Your task to perform on an android device: turn pop-ups on in chrome Image 0: 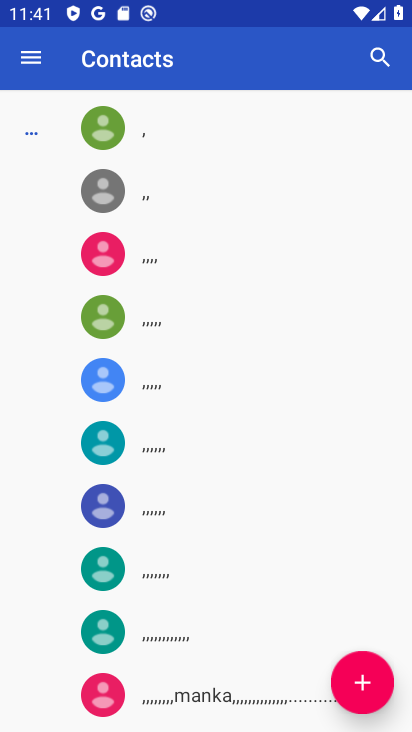
Step 0: press back button
Your task to perform on an android device: turn pop-ups on in chrome Image 1: 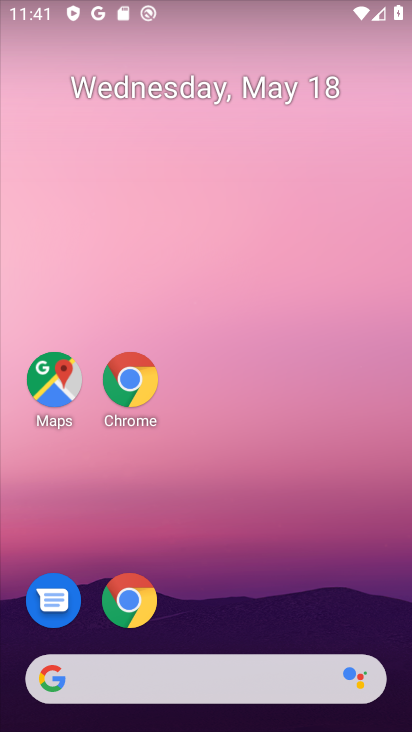
Step 1: click (204, 53)
Your task to perform on an android device: turn pop-ups on in chrome Image 2: 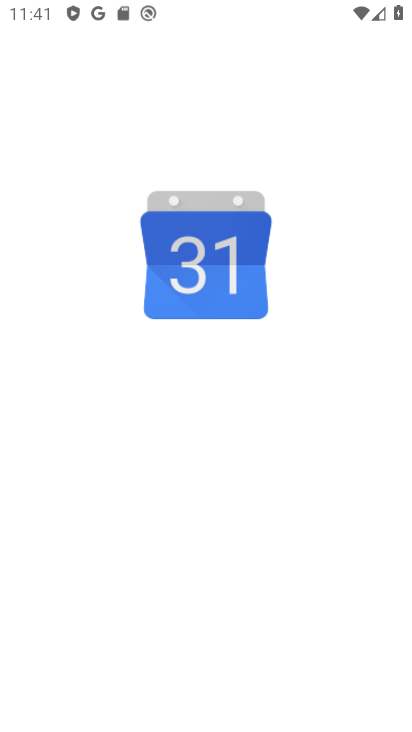
Step 2: drag from (328, 613) to (250, 264)
Your task to perform on an android device: turn pop-ups on in chrome Image 3: 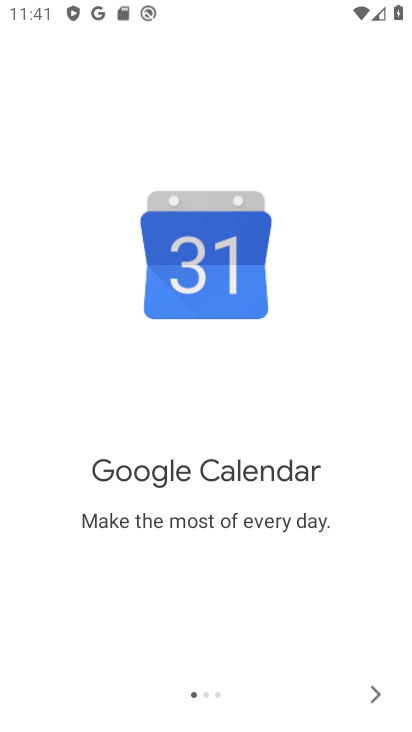
Step 3: press back button
Your task to perform on an android device: turn pop-ups on in chrome Image 4: 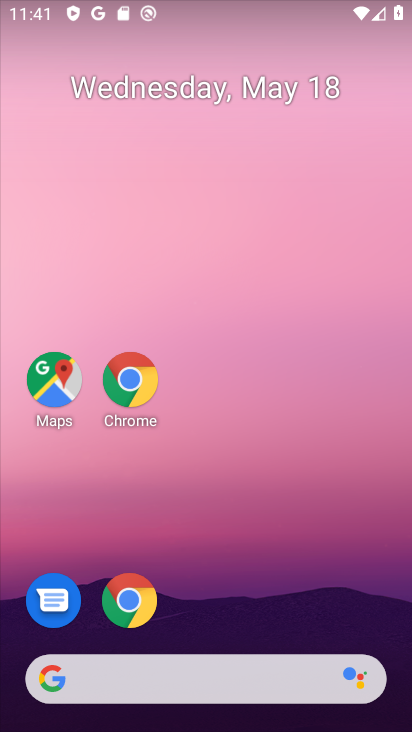
Step 4: click (266, 218)
Your task to perform on an android device: turn pop-ups on in chrome Image 5: 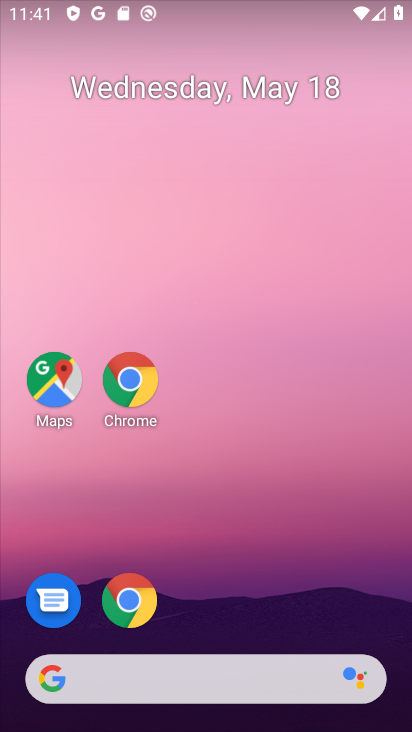
Step 5: drag from (276, 234) to (262, 176)
Your task to perform on an android device: turn pop-ups on in chrome Image 6: 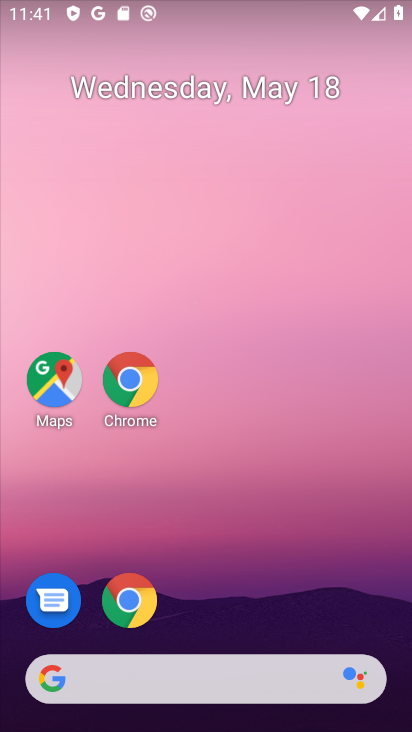
Step 6: drag from (272, 405) to (219, 66)
Your task to perform on an android device: turn pop-ups on in chrome Image 7: 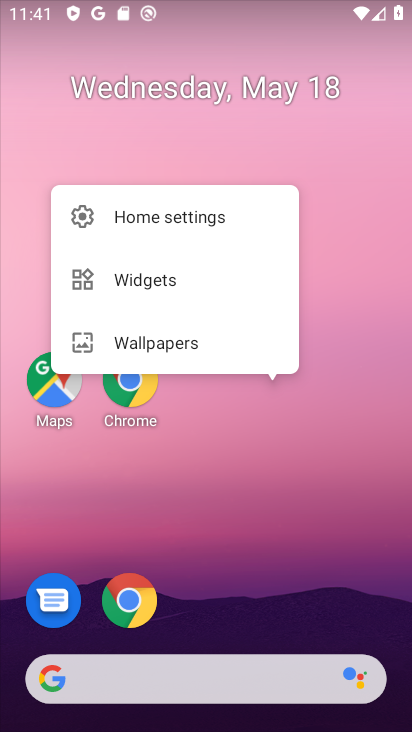
Step 7: drag from (283, 603) to (175, 52)
Your task to perform on an android device: turn pop-ups on in chrome Image 8: 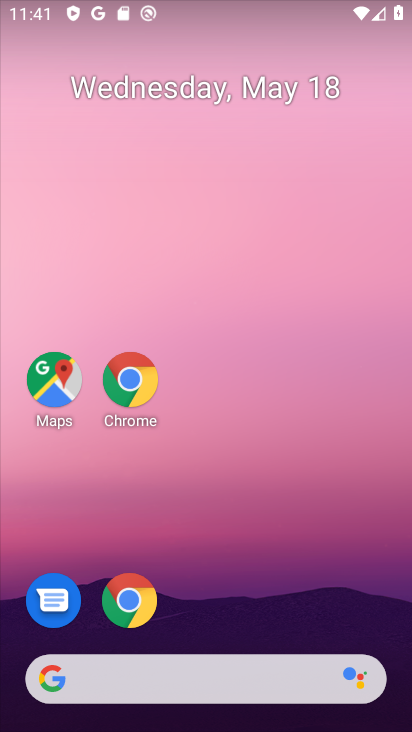
Step 8: drag from (246, 429) to (189, 50)
Your task to perform on an android device: turn pop-ups on in chrome Image 9: 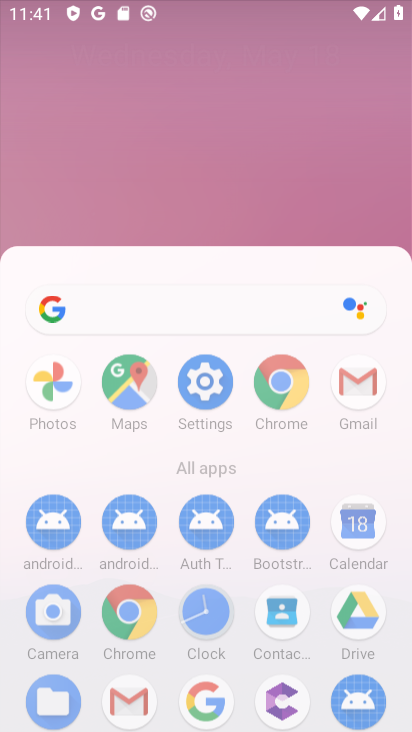
Step 9: drag from (314, 428) to (252, 8)
Your task to perform on an android device: turn pop-ups on in chrome Image 10: 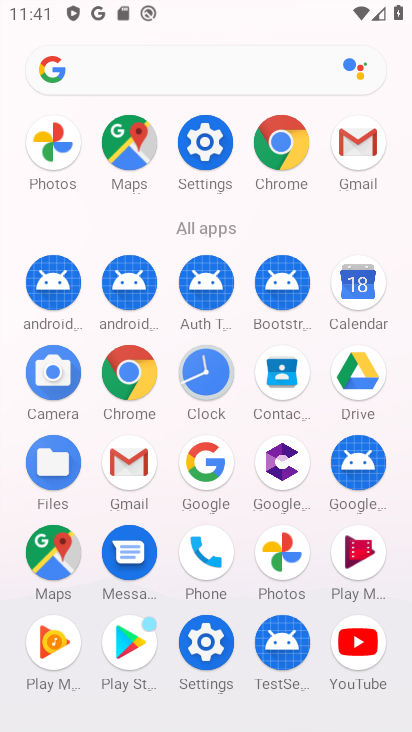
Step 10: drag from (366, 526) to (317, 25)
Your task to perform on an android device: turn pop-ups on in chrome Image 11: 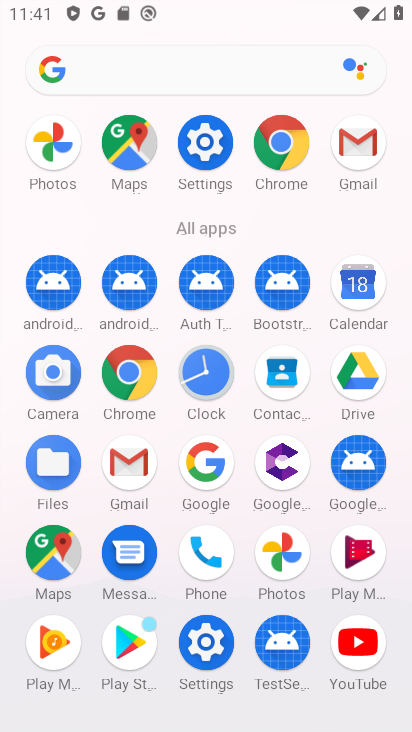
Step 11: click (278, 137)
Your task to perform on an android device: turn pop-ups on in chrome Image 12: 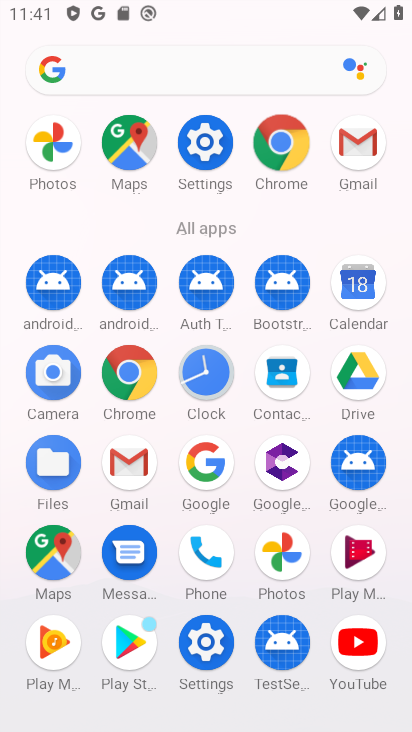
Step 12: click (278, 137)
Your task to perform on an android device: turn pop-ups on in chrome Image 13: 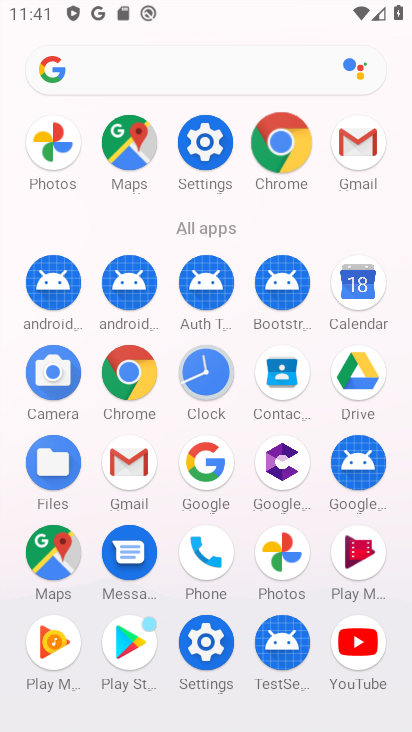
Step 13: click (277, 138)
Your task to perform on an android device: turn pop-ups on in chrome Image 14: 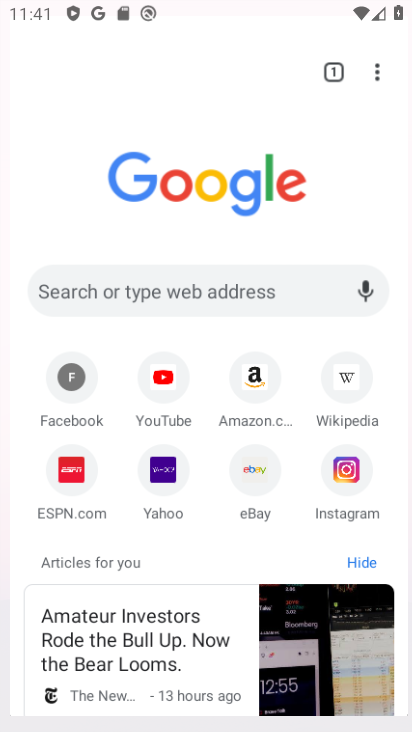
Step 14: click (275, 142)
Your task to perform on an android device: turn pop-ups on in chrome Image 15: 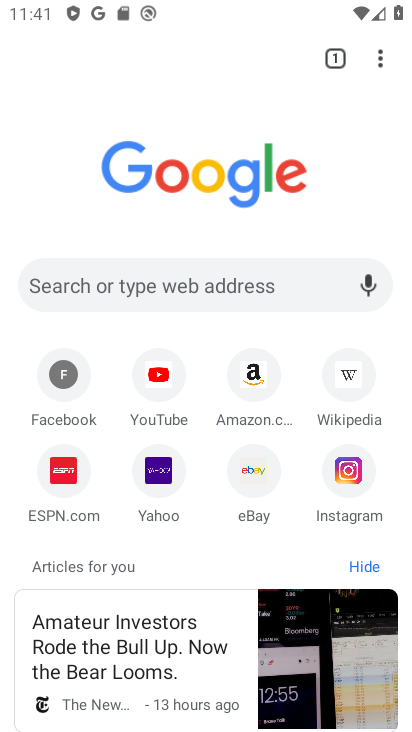
Step 15: click (285, 150)
Your task to perform on an android device: turn pop-ups on in chrome Image 16: 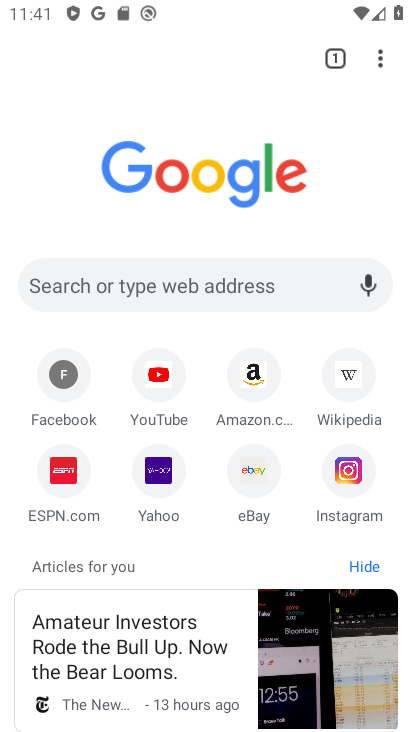
Step 16: drag from (376, 53) to (169, 486)
Your task to perform on an android device: turn pop-ups on in chrome Image 17: 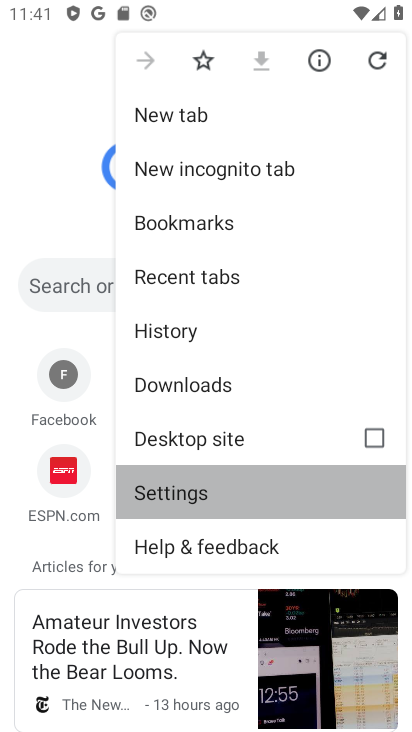
Step 17: click (164, 477)
Your task to perform on an android device: turn pop-ups on in chrome Image 18: 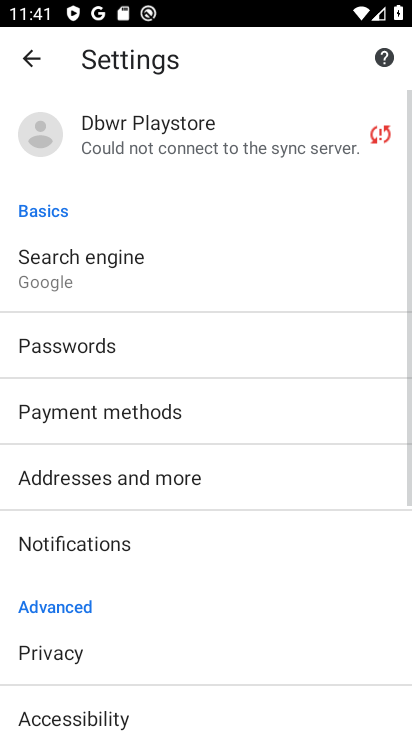
Step 18: drag from (222, 543) to (202, 237)
Your task to perform on an android device: turn pop-ups on in chrome Image 19: 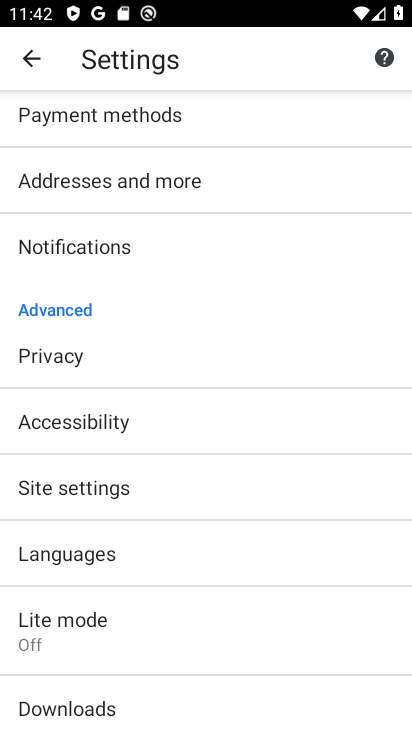
Step 19: click (81, 483)
Your task to perform on an android device: turn pop-ups on in chrome Image 20: 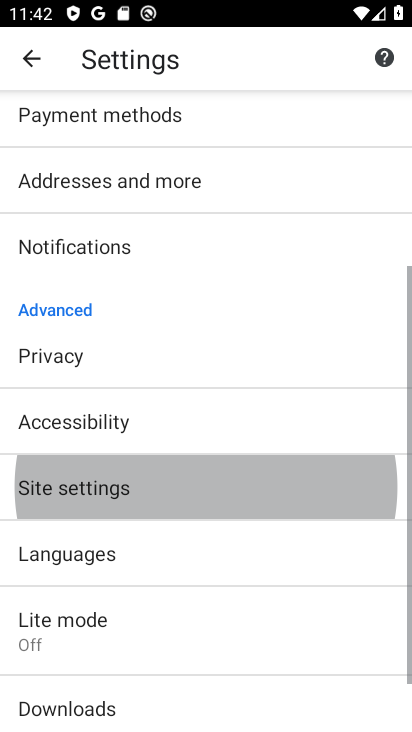
Step 20: click (83, 483)
Your task to perform on an android device: turn pop-ups on in chrome Image 21: 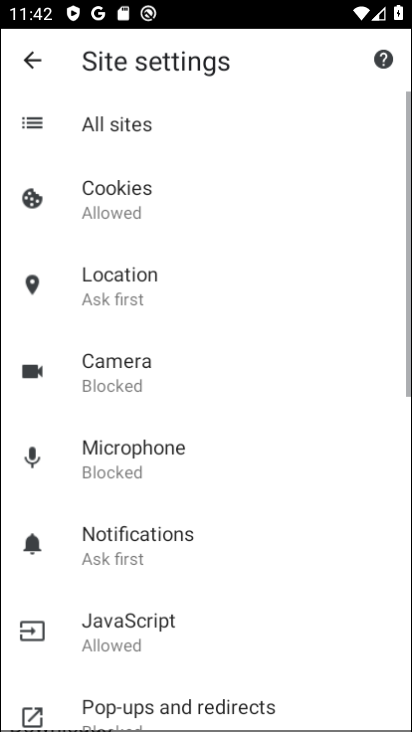
Step 21: click (82, 474)
Your task to perform on an android device: turn pop-ups on in chrome Image 22: 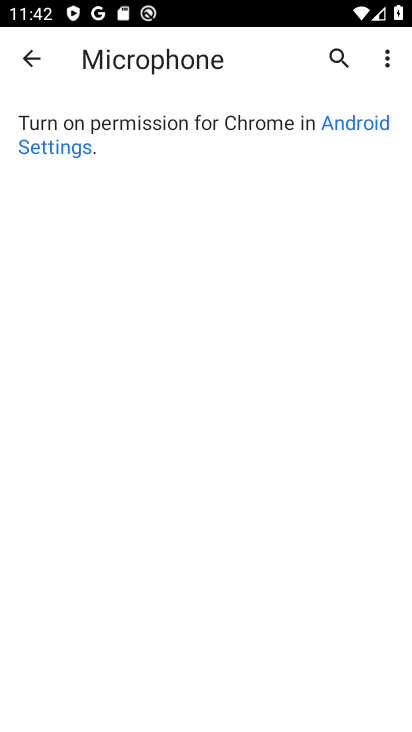
Step 22: click (38, 58)
Your task to perform on an android device: turn pop-ups on in chrome Image 23: 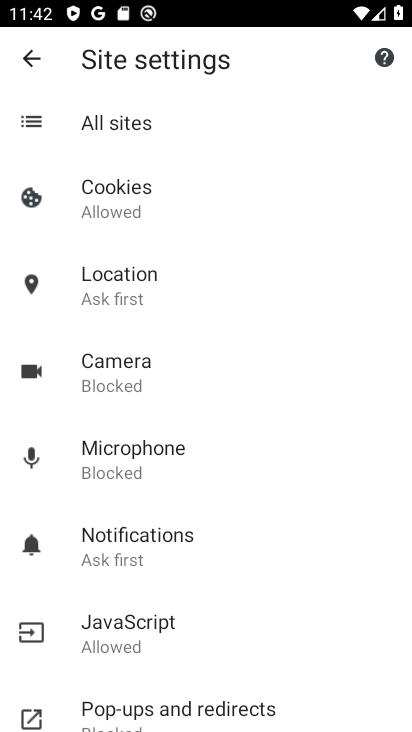
Step 23: drag from (145, 517) to (197, 150)
Your task to perform on an android device: turn pop-ups on in chrome Image 24: 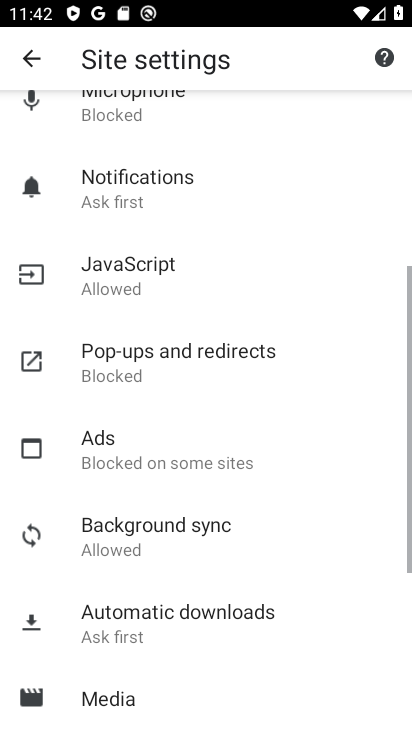
Step 24: drag from (178, 523) to (203, 204)
Your task to perform on an android device: turn pop-ups on in chrome Image 25: 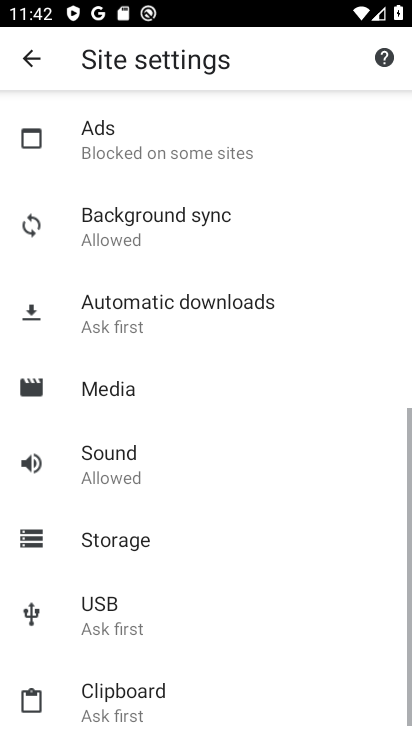
Step 25: drag from (222, 499) to (290, 124)
Your task to perform on an android device: turn pop-ups on in chrome Image 26: 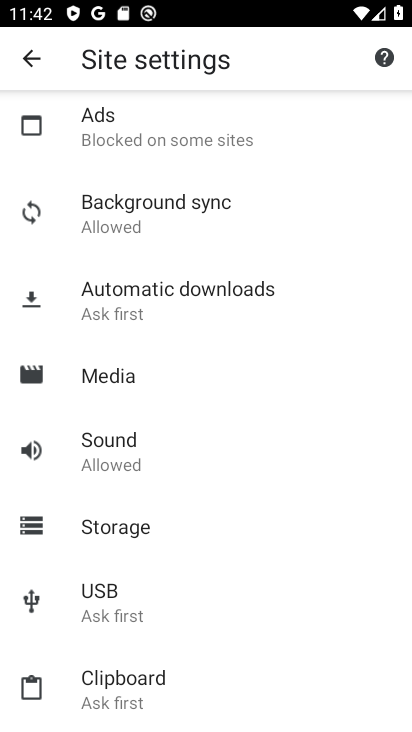
Step 26: drag from (109, 199) to (223, 612)
Your task to perform on an android device: turn pop-ups on in chrome Image 27: 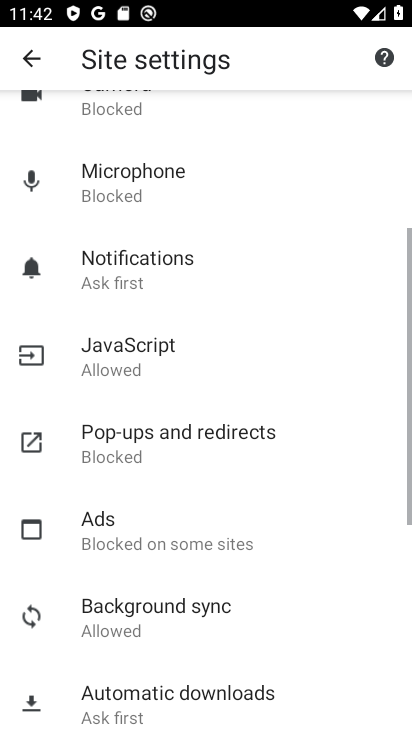
Step 27: drag from (176, 255) to (212, 527)
Your task to perform on an android device: turn pop-ups on in chrome Image 28: 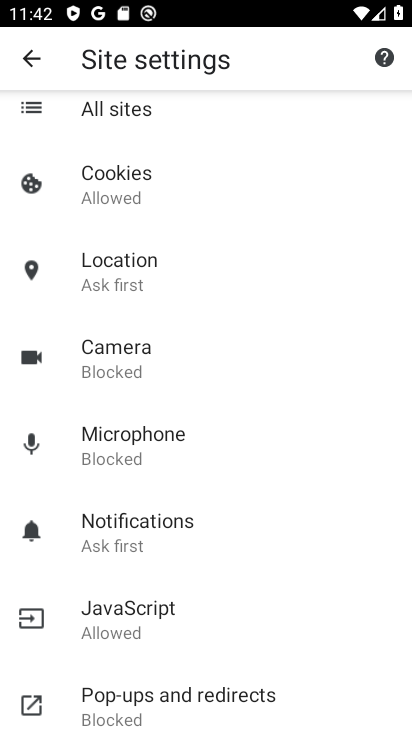
Step 28: click (142, 684)
Your task to perform on an android device: turn pop-ups on in chrome Image 29: 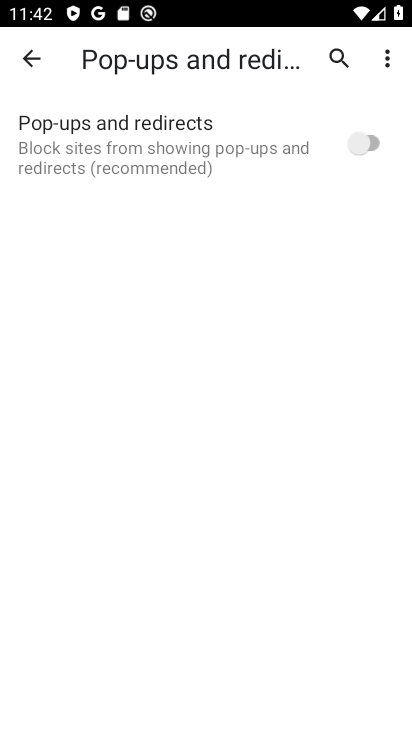
Step 29: click (349, 144)
Your task to perform on an android device: turn pop-ups on in chrome Image 30: 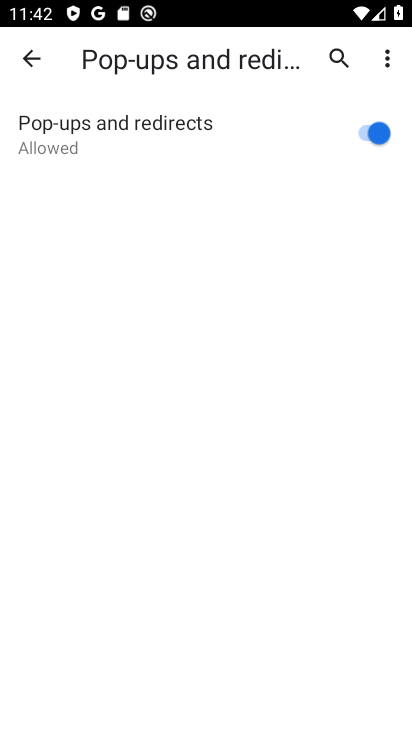
Step 30: task complete